Your task to perform on an android device: Go to ESPN.com Image 0: 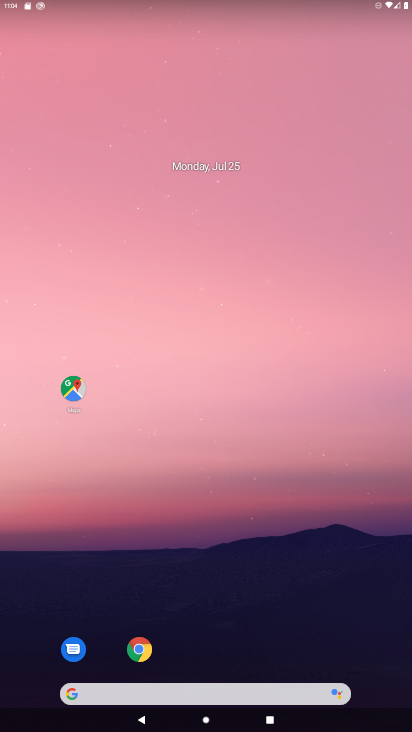
Step 0: click (139, 653)
Your task to perform on an android device: Go to ESPN.com Image 1: 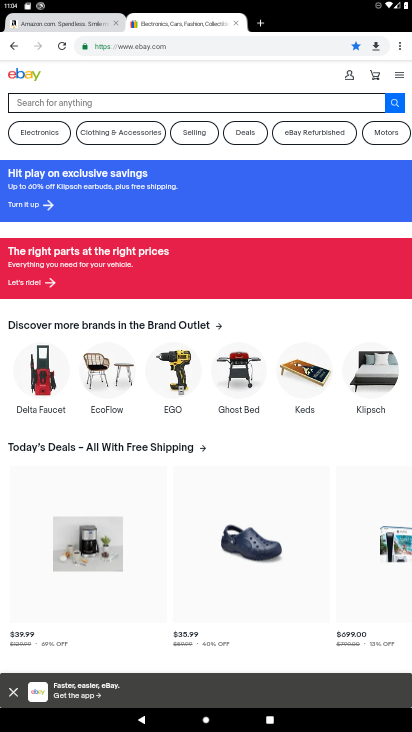
Step 1: click (189, 44)
Your task to perform on an android device: Go to ESPN.com Image 2: 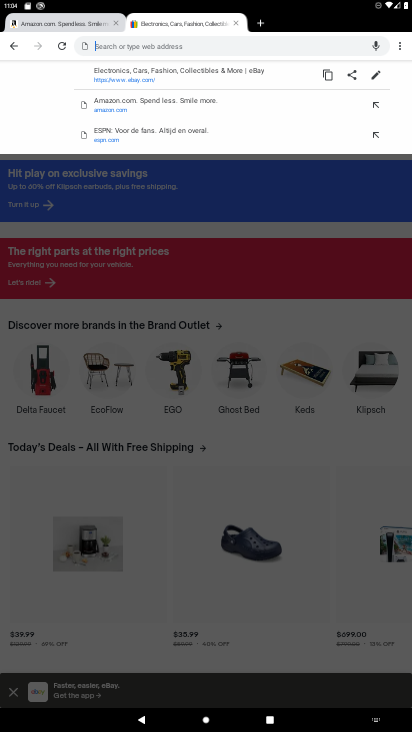
Step 2: type "ESPN.com"
Your task to perform on an android device: Go to ESPN.com Image 3: 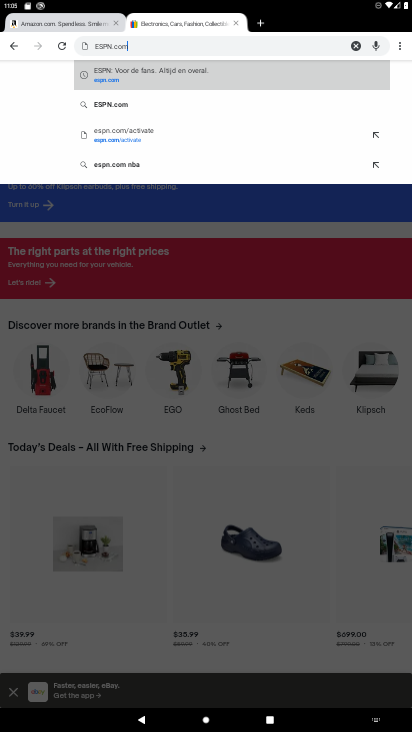
Step 3: click (116, 71)
Your task to perform on an android device: Go to ESPN.com Image 4: 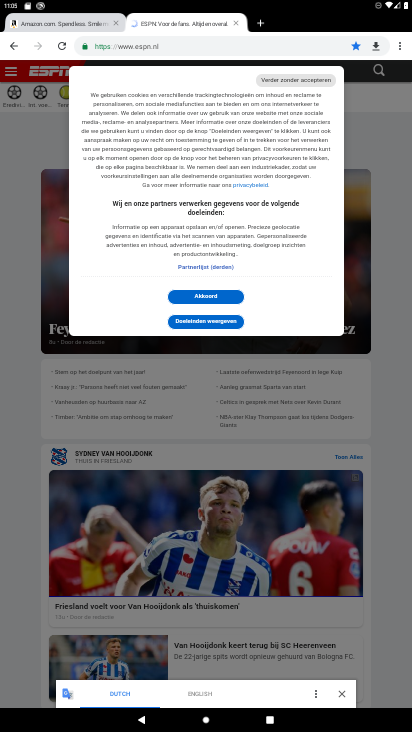
Step 4: click (205, 295)
Your task to perform on an android device: Go to ESPN.com Image 5: 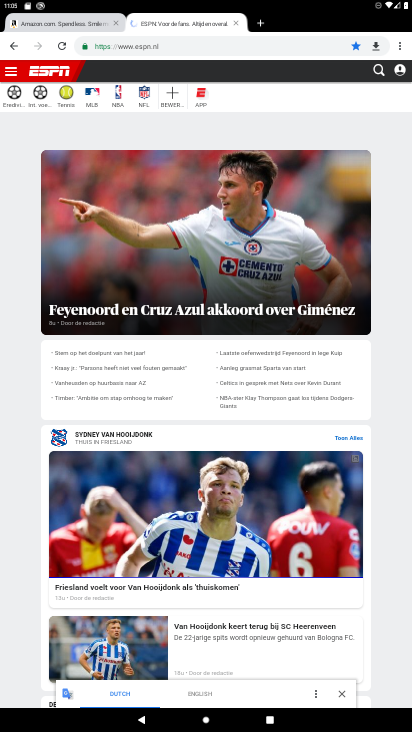
Step 5: task complete